Your task to perform on an android device: turn pop-ups off in chrome Image 0: 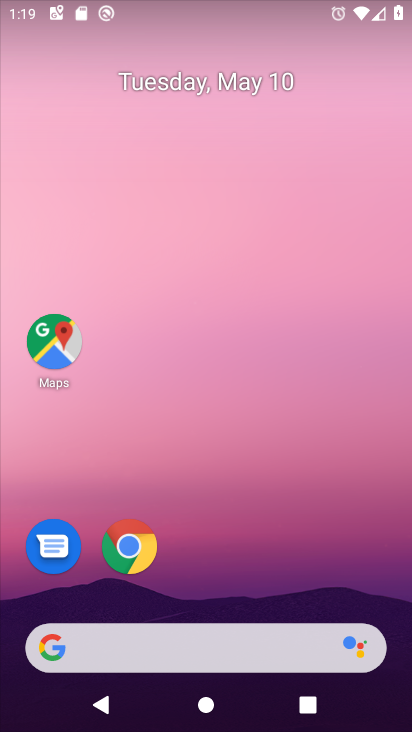
Step 0: click (148, 542)
Your task to perform on an android device: turn pop-ups off in chrome Image 1: 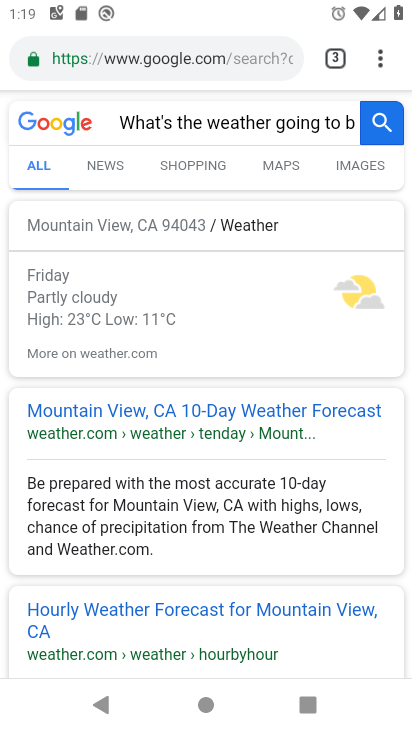
Step 1: drag from (389, 54) to (217, 561)
Your task to perform on an android device: turn pop-ups off in chrome Image 2: 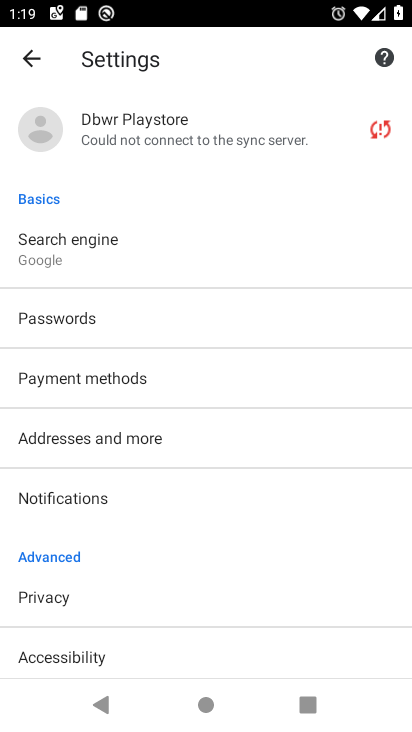
Step 2: drag from (188, 609) to (180, 171)
Your task to perform on an android device: turn pop-ups off in chrome Image 3: 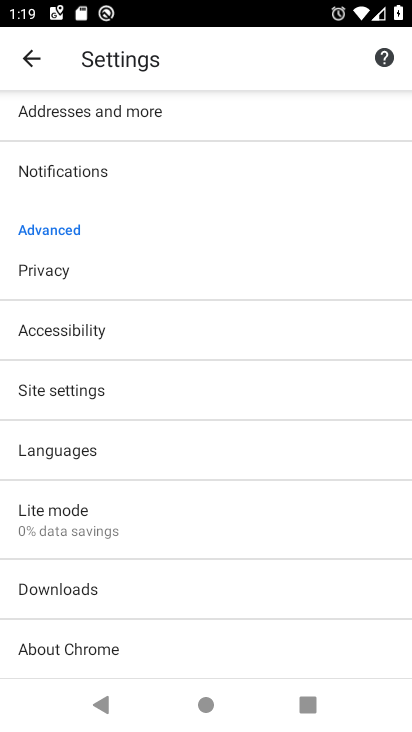
Step 3: click (100, 391)
Your task to perform on an android device: turn pop-ups off in chrome Image 4: 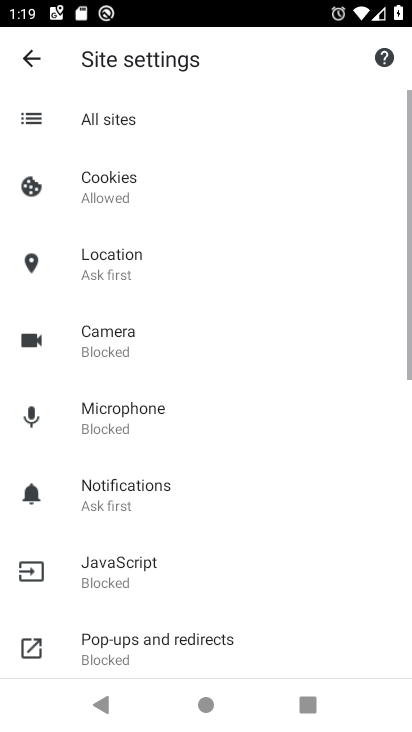
Step 4: drag from (221, 600) to (219, 463)
Your task to perform on an android device: turn pop-ups off in chrome Image 5: 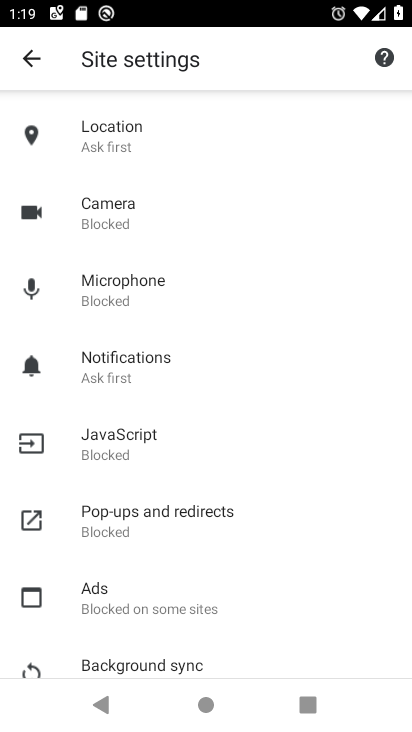
Step 5: click (191, 511)
Your task to perform on an android device: turn pop-ups off in chrome Image 6: 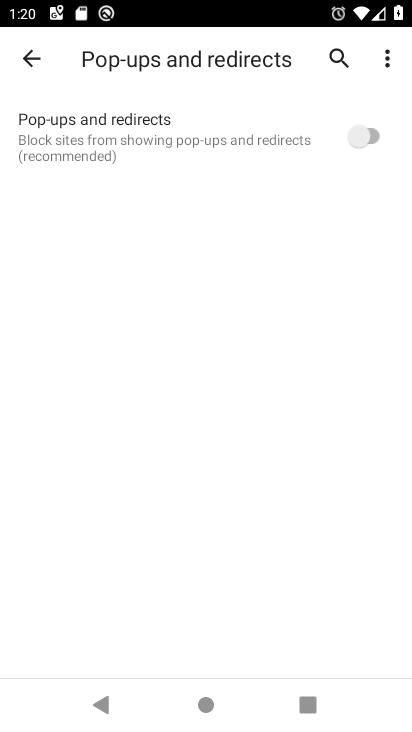
Step 6: task complete